Your task to perform on an android device: turn off notifications settings in the gmail app Image 0: 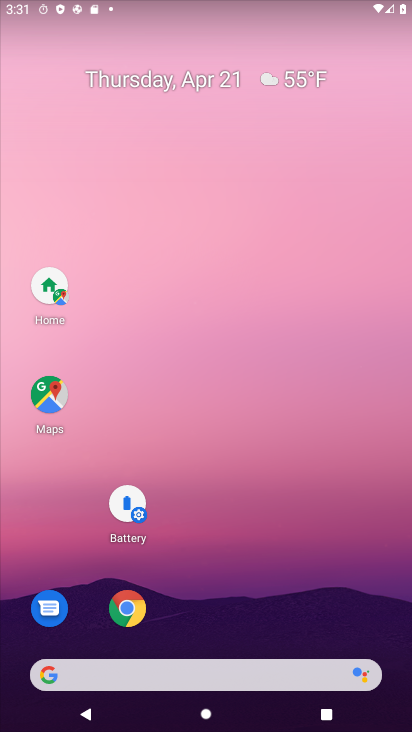
Step 0: drag from (242, 503) to (264, 120)
Your task to perform on an android device: turn off notifications settings in the gmail app Image 1: 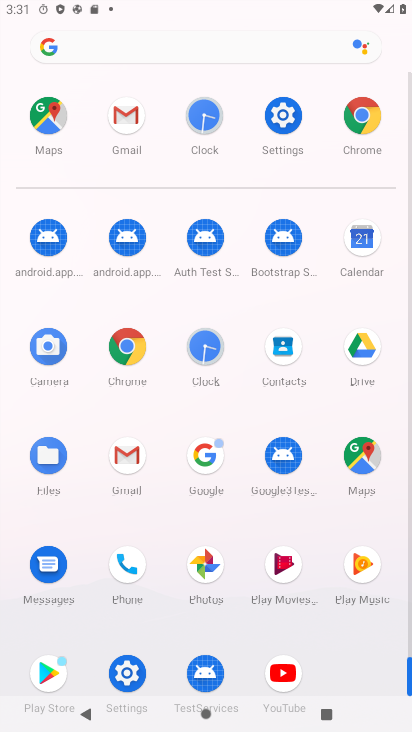
Step 1: click (130, 125)
Your task to perform on an android device: turn off notifications settings in the gmail app Image 2: 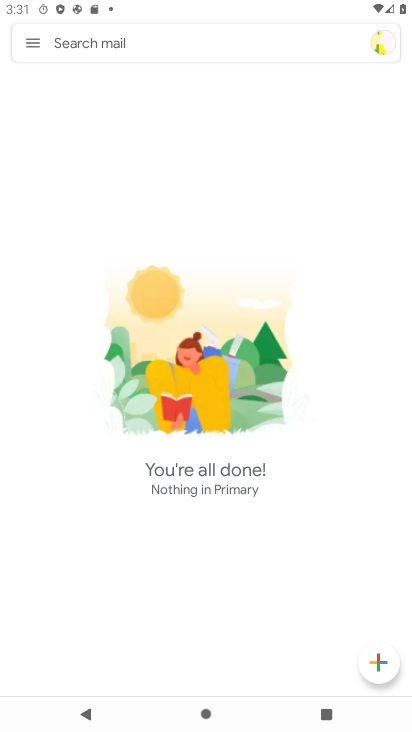
Step 2: click (33, 41)
Your task to perform on an android device: turn off notifications settings in the gmail app Image 3: 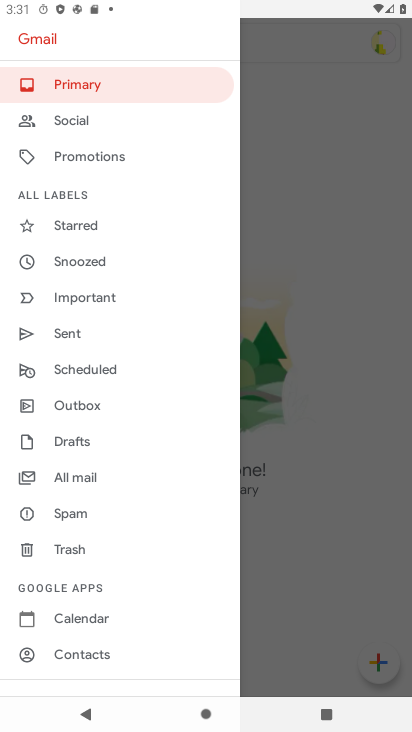
Step 3: drag from (100, 613) to (114, 197)
Your task to perform on an android device: turn off notifications settings in the gmail app Image 4: 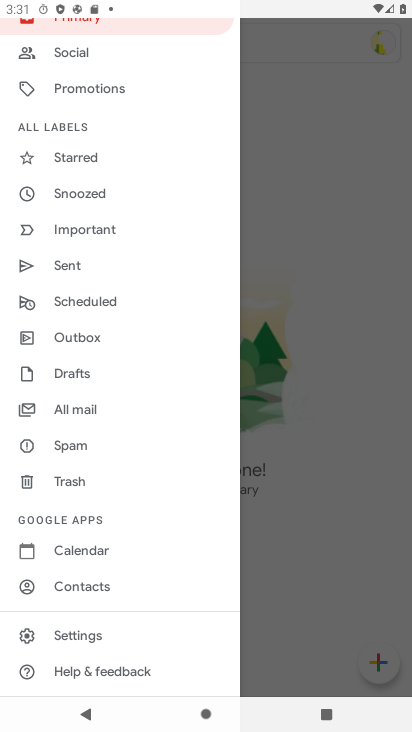
Step 4: click (86, 637)
Your task to perform on an android device: turn off notifications settings in the gmail app Image 5: 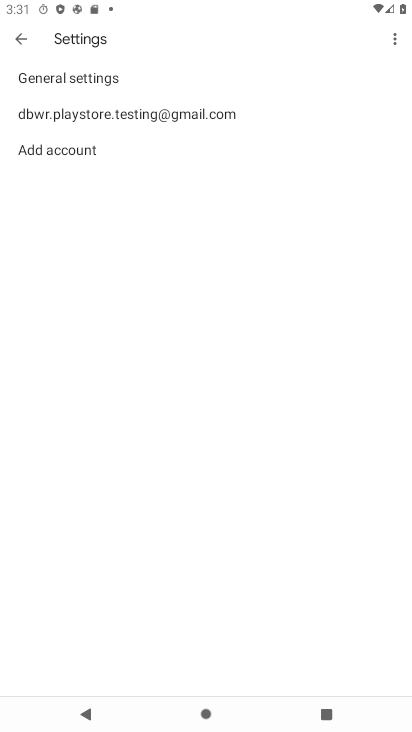
Step 5: click (57, 122)
Your task to perform on an android device: turn off notifications settings in the gmail app Image 6: 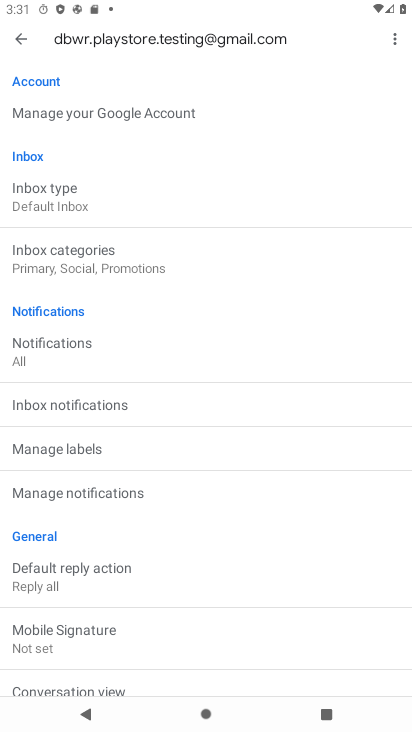
Step 6: click (40, 347)
Your task to perform on an android device: turn off notifications settings in the gmail app Image 7: 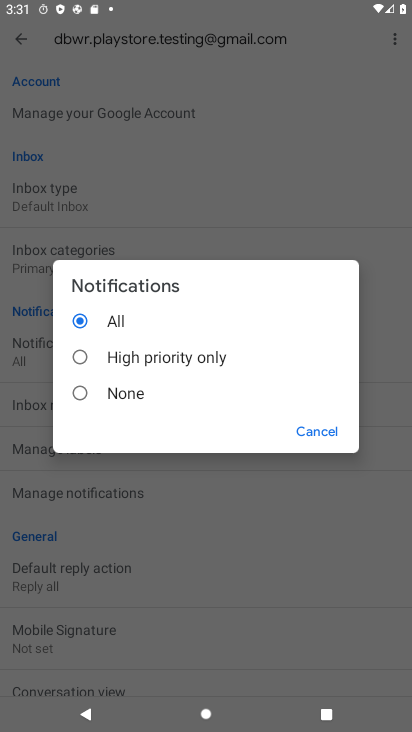
Step 7: click (86, 397)
Your task to perform on an android device: turn off notifications settings in the gmail app Image 8: 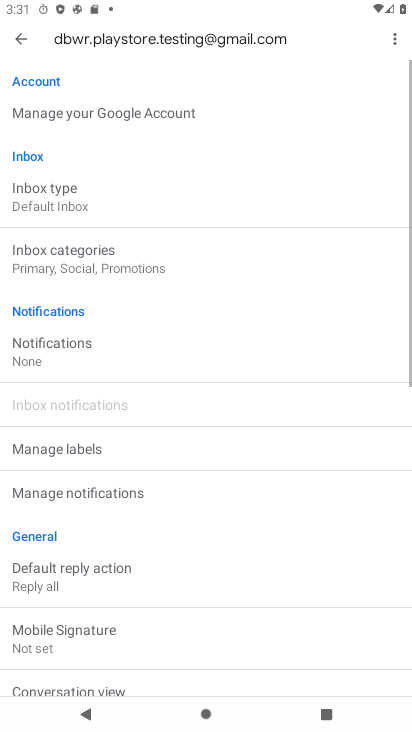
Step 8: task complete